Your task to perform on an android device: Go to Wikipedia Image 0: 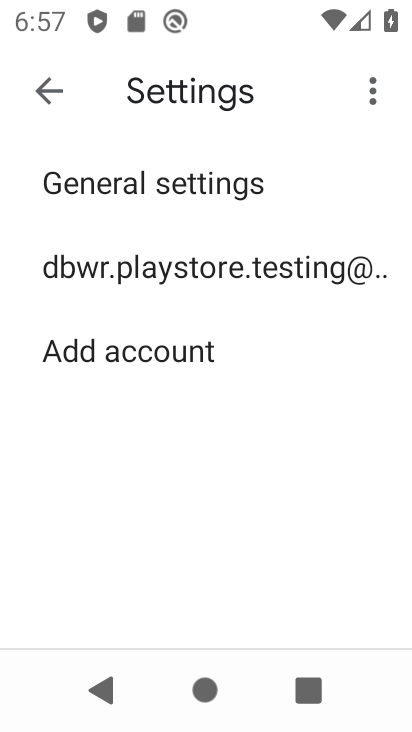
Step 0: press back button
Your task to perform on an android device: Go to Wikipedia Image 1: 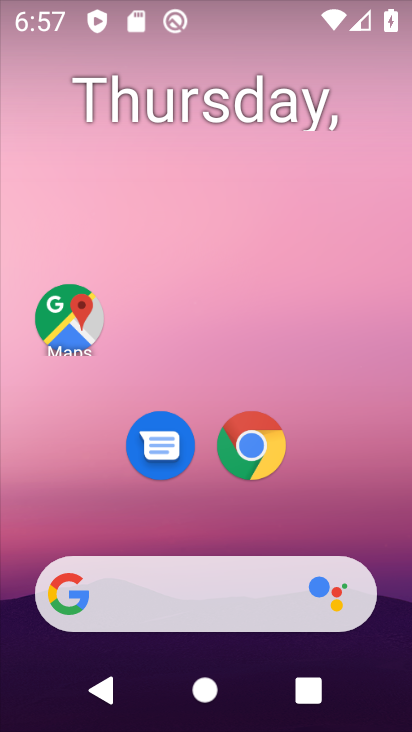
Step 1: click (209, 607)
Your task to perform on an android device: Go to Wikipedia Image 2: 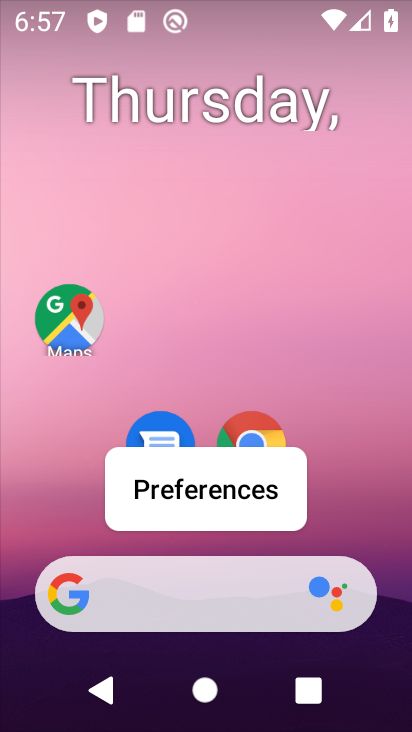
Step 2: click (206, 503)
Your task to perform on an android device: Go to Wikipedia Image 3: 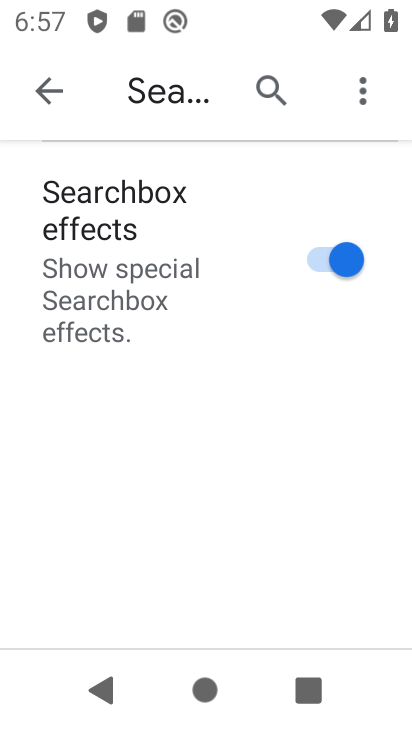
Step 3: press back button
Your task to perform on an android device: Go to Wikipedia Image 4: 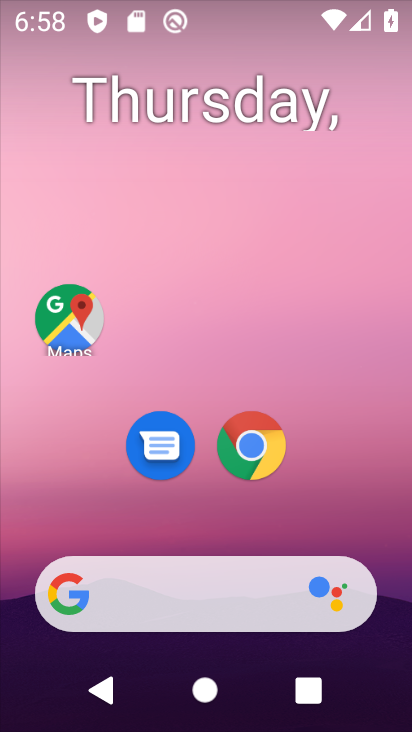
Step 4: drag from (261, 540) to (206, 184)
Your task to perform on an android device: Go to Wikipedia Image 5: 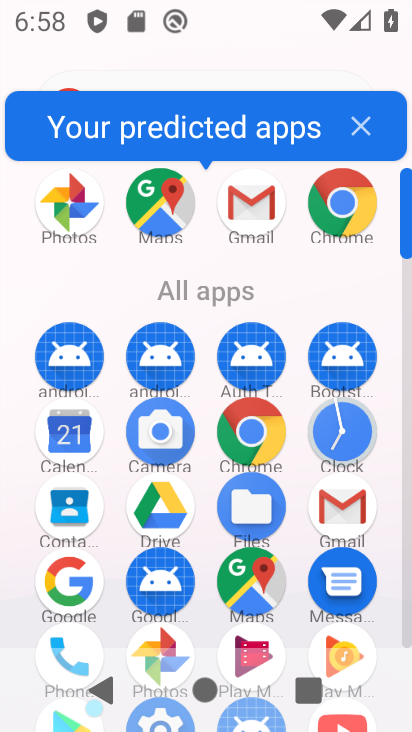
Step 5: drag from (290, 621) to (254, 365)
Your task to perform on an android device: Go to Wikipedia Image 6: 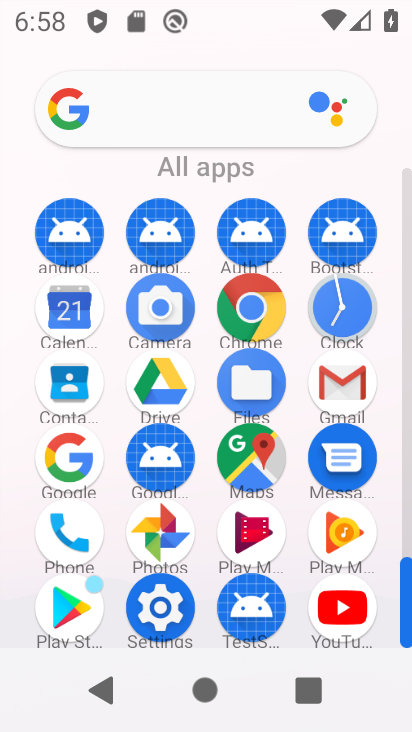
Step 6: drag from (280, 637) to (253, 410)
Your task to perform on an android device: Go to Wikipedia Image 7: 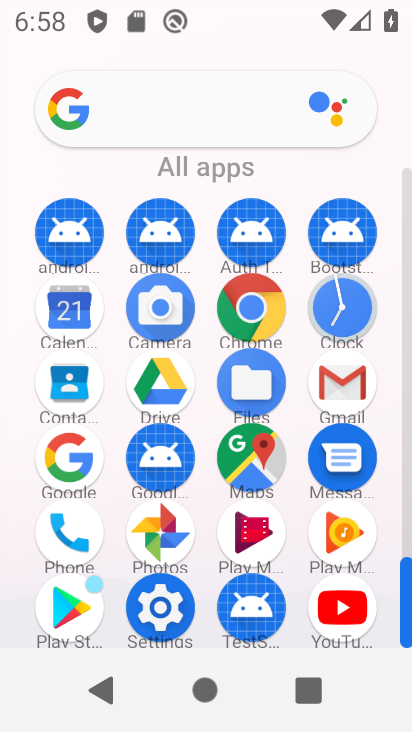
Step 7: click (242, 317)
Your task to perform on an android device: Go to Wikipedia Image 8: 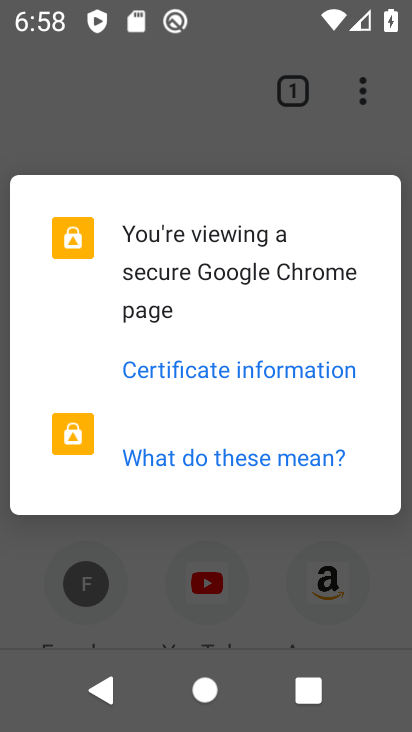
Step 8: click (199, 372)
Your task to perform on an android device: Go to Wikipedia Image 9: 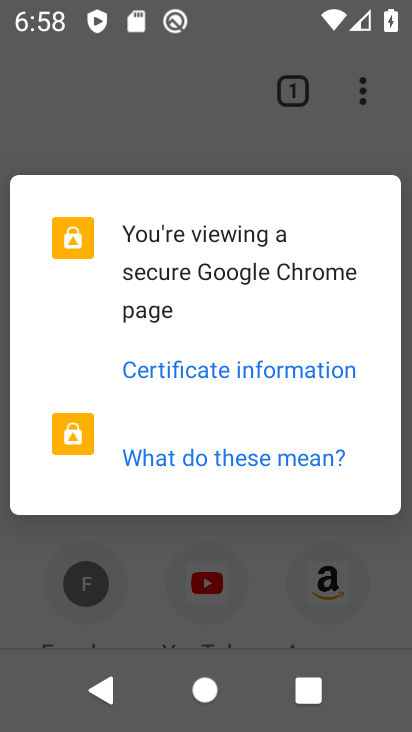
Step 9: click (190, 376)
Your task to perform on an android device: Go to Wikipedia Image 10: 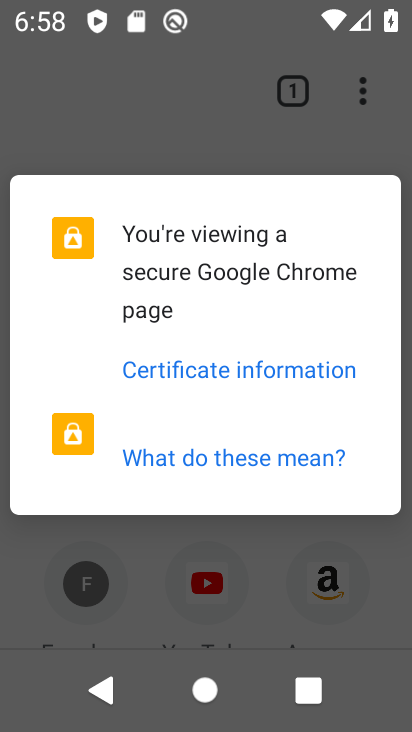
Step 10: click (190, 374)
Your task to perform on an android device: Go to Wikipedia Image 11: 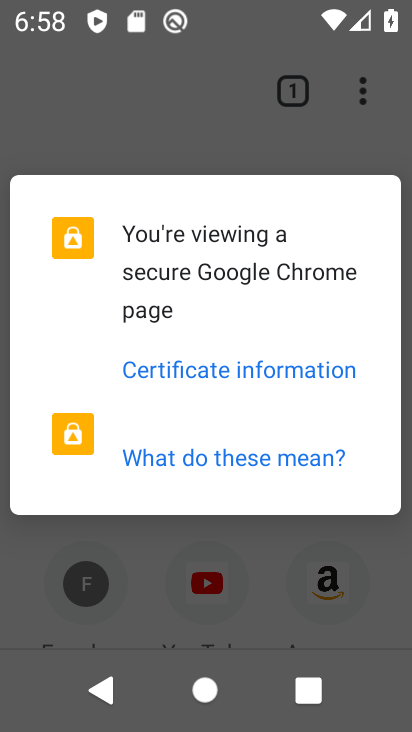
Step 11: click (202, 362)
Your task to perform on an android device: Go to Wikipedia Image 12: 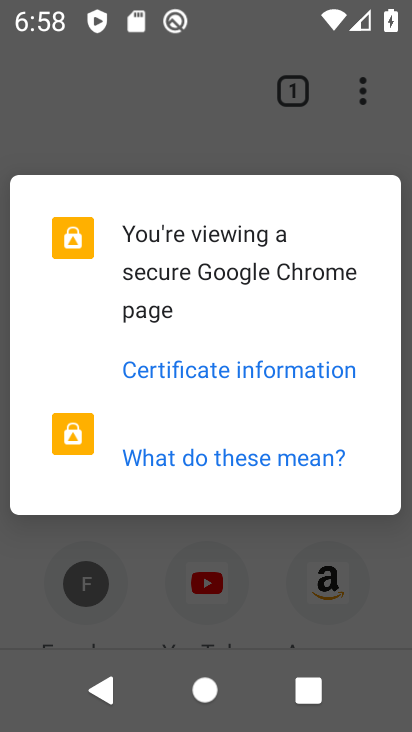
Step 12: click (206, 375)
Your task to perform on an android device: Go to Wikipedia Image 13: 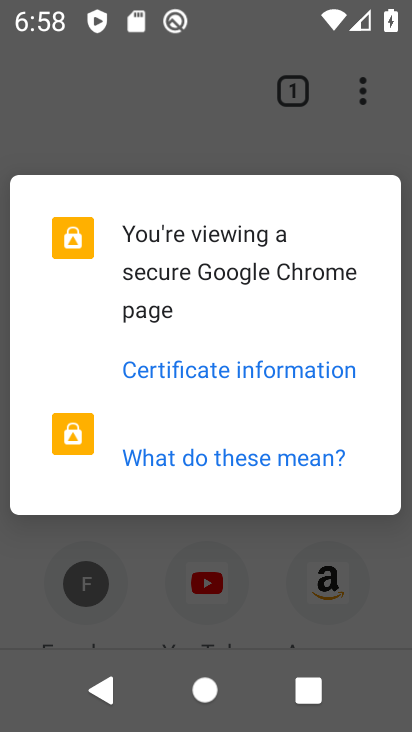
Step 13: press back button
Your task to perform on an android device: Go to Wikipedia Image 14: 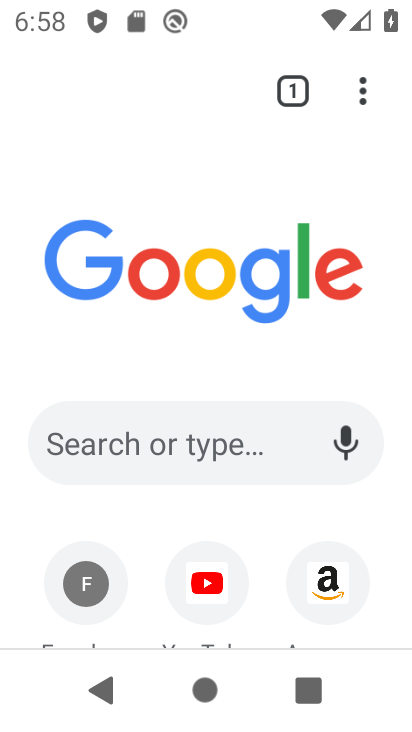
Step 14: click (359, 99)
Your task to perform on an android device: Go to Wikipedia Image 15: 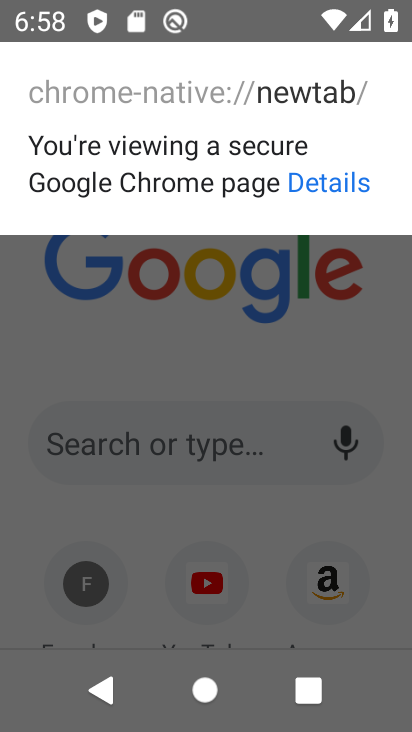
Step 15: click (272, 619)
Your task to perform on an android device: Go to Wikipedia Image 16: 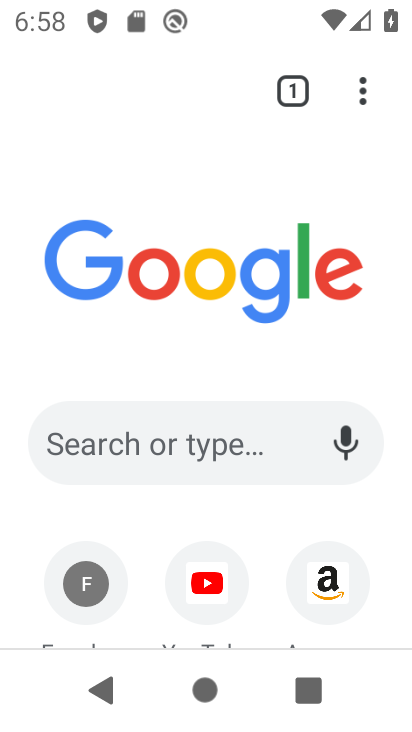
Step 16: drag from (254, 605) to (243, 218)
Your task to perform on an android device: Go to Wikipedia Image 17: 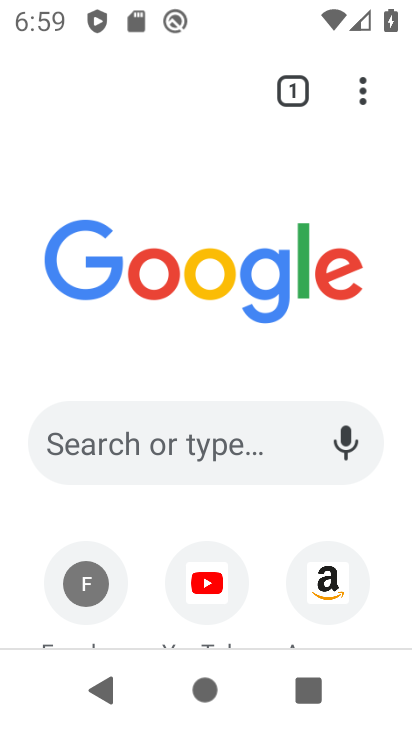
Step 17: drag from (270, 630) to (201, 237)
Your task to perform on an android device: Go to Wikipedia Image 18: 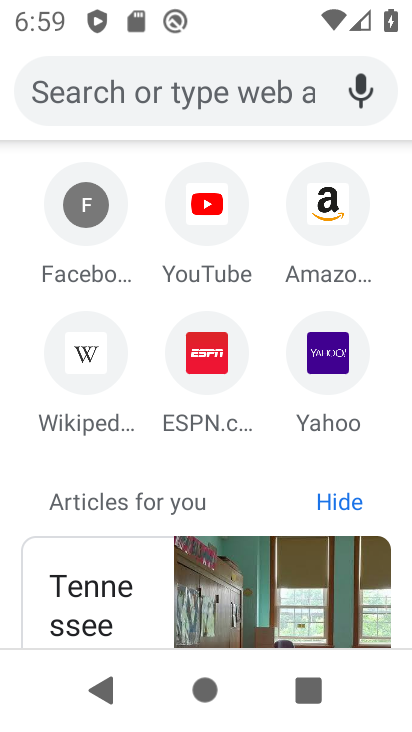
Step 18: click (93, 351)
Your task to perform on an android device: Go to Wikipedia Image 19: 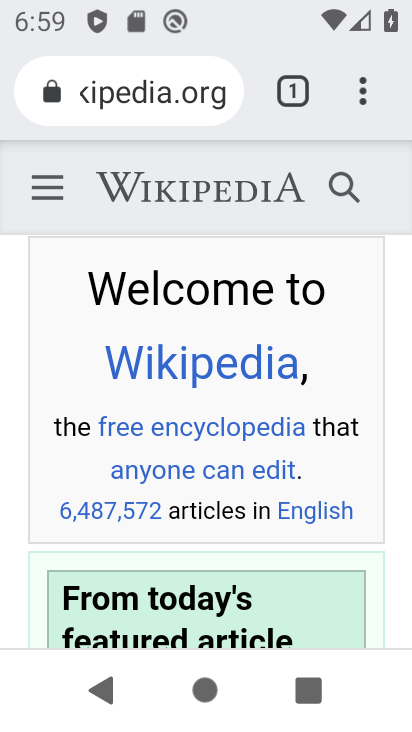
Step 19: task complete